Your task to perform on an android device: delete the emails in spam in the gmail app Image 0: 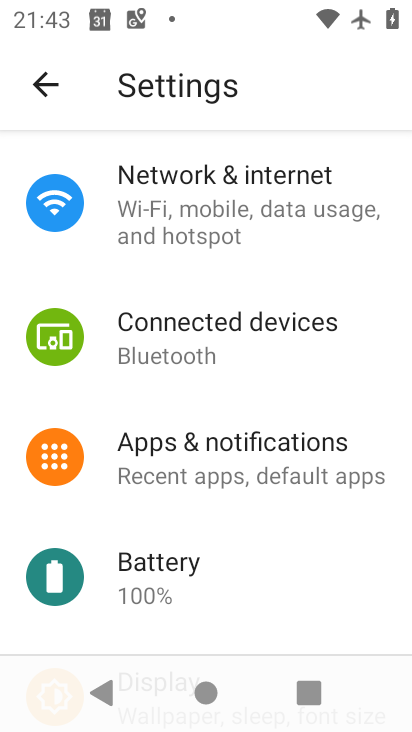
Step 0: press home button
Your task to perform on an android device: delete the emails in spam in the gmail app Image 1: 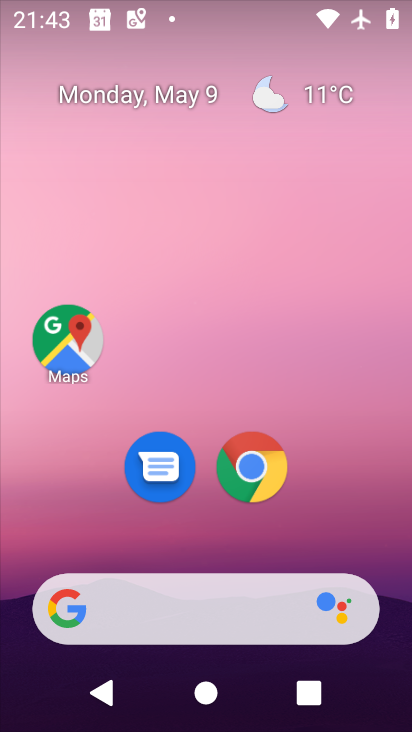
Step 1: drag from (314, 520) to (336, 166)
Your task to perform on an android device: delete the emails in spam in the gmail app Image 2: 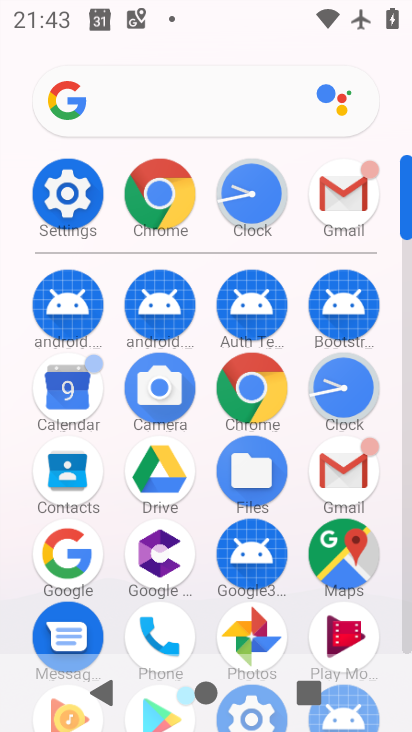
Step 2: click (338, 195)
Your task to perform on an android device: delete the emails in spam in the gmail app Image 3: 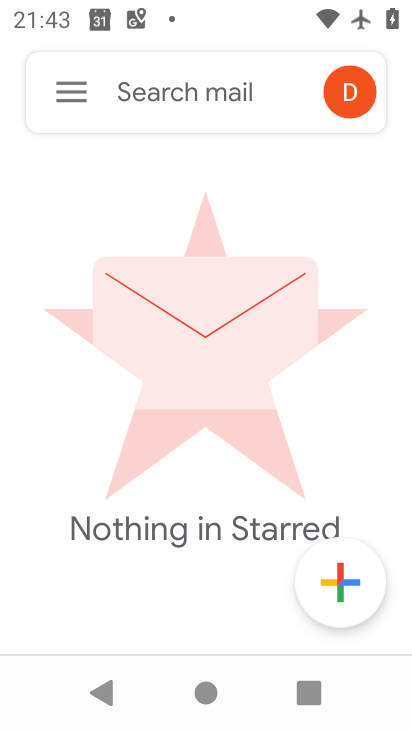
Step 3: click (64, 87)
Your task to perform on an android device: delete the emails in spam in the gmail app Image 4: 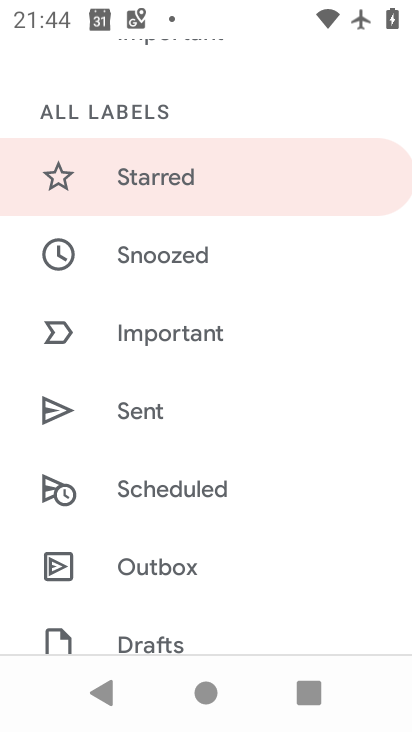
Step 4: drag from (263, 532) to (303, 255)
Your task to perform on an android device: delete the emails in spam in the gmail app Image 5: 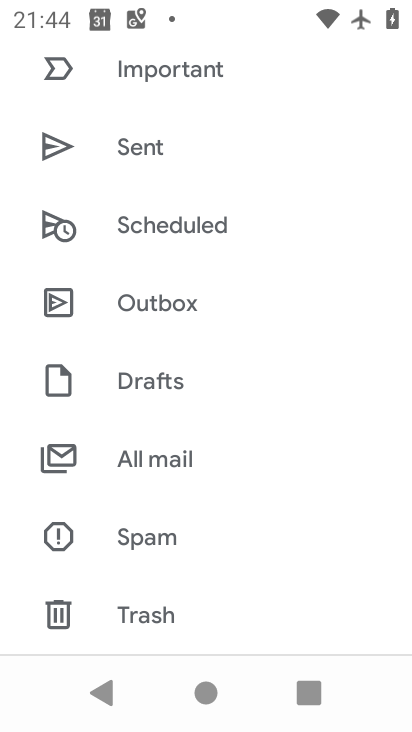
Step 5: click (169, 446)
Your task to perform on an android device: delete the emails in spam in the gmail app Image 6: 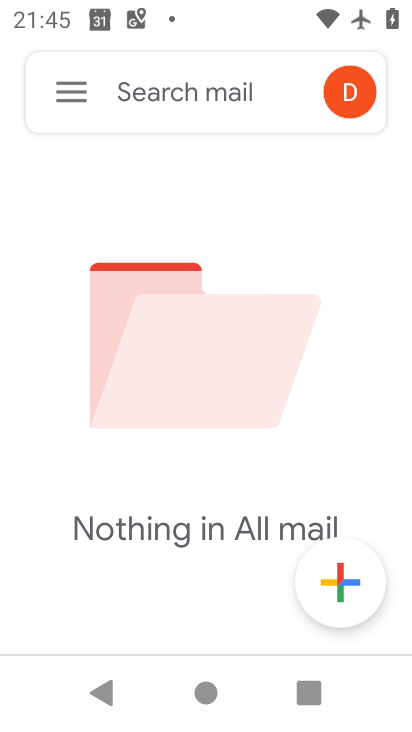
Step 6: task complete